Your task to perform on an android device: Clear the cart on ebay. Image 0: 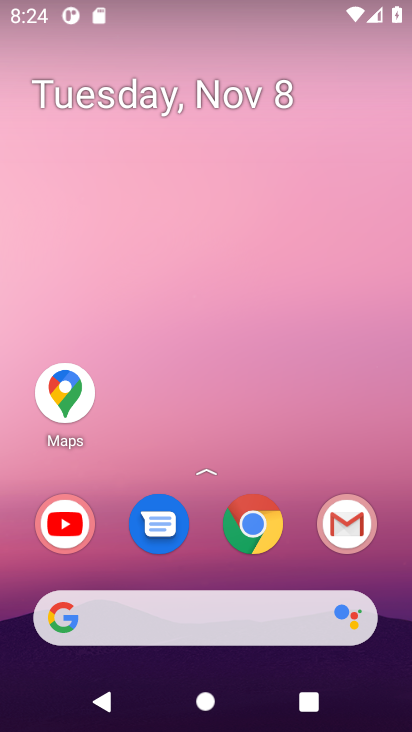
Step 0: click (262, 520)
Your task to perform on an android device: Clear the cart on ebay. Image 1: 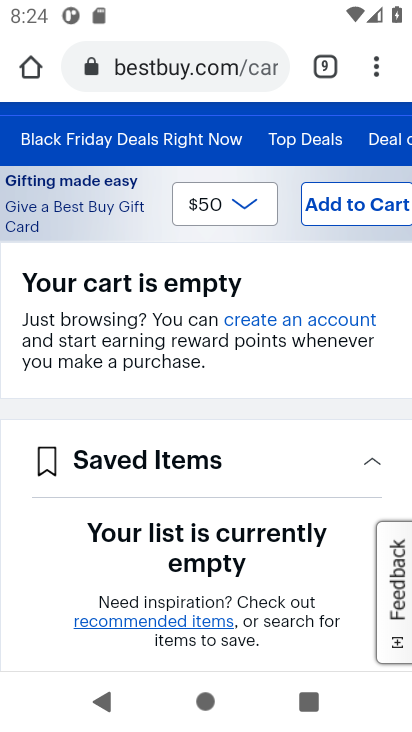
Step 1: click (234, 78)
Your task to perform on an android device: Clear the cart on ebay. Image 2: 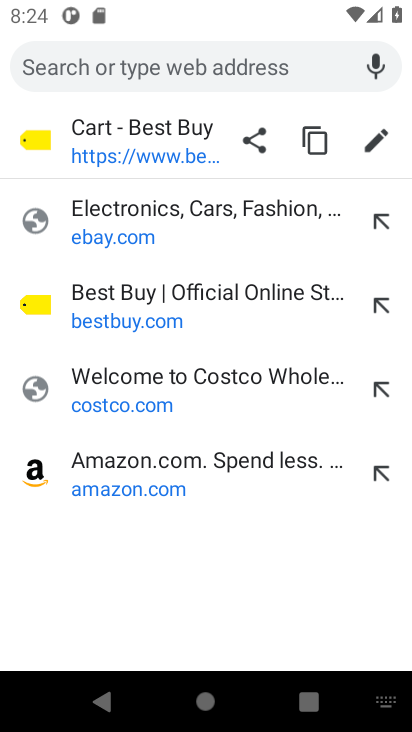
Step 2: click (141, 231)
Your task to perform on an android device: Clear the cart on ebay. Image 3: 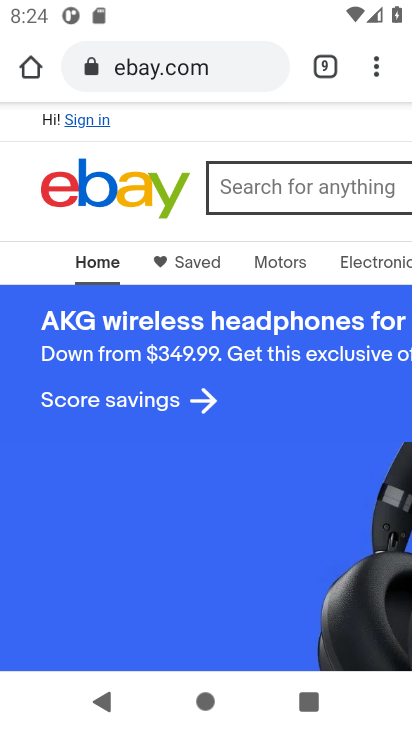
Step 3: drag from (321, 235) to (62, 216)
Your task to perform on an android device: Clear the cart on ebay. Image 4: 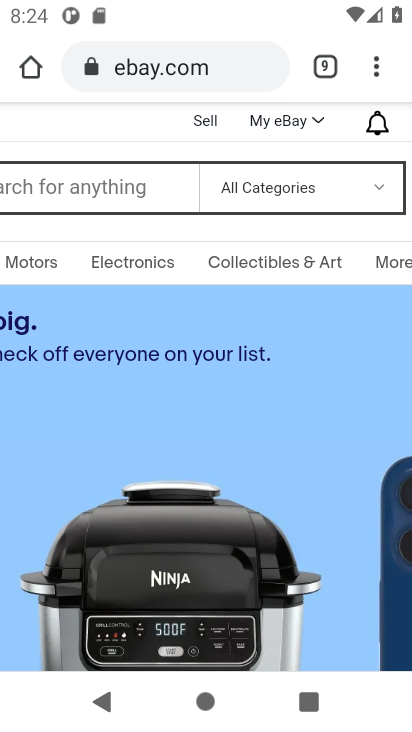
Step 4: drag from (314, 178) to (295, 261)
Your task to perform on an android device: Clear the cart on ebay. Image 5: 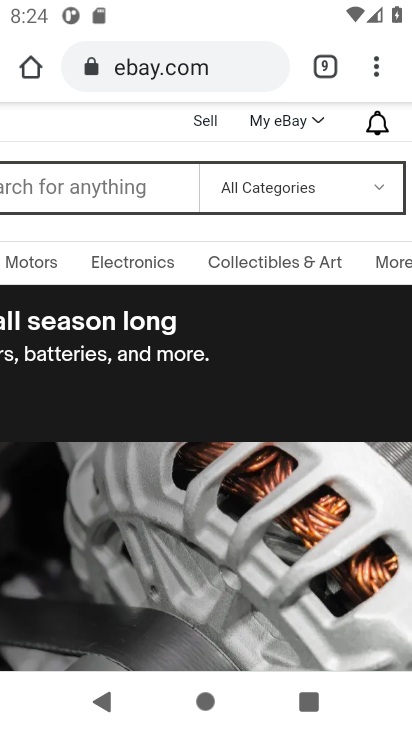
Step 5: drag from (382, 170) to (62, 154)
Your task to perform on an android device: Clear the cart on ebay. Image 6: 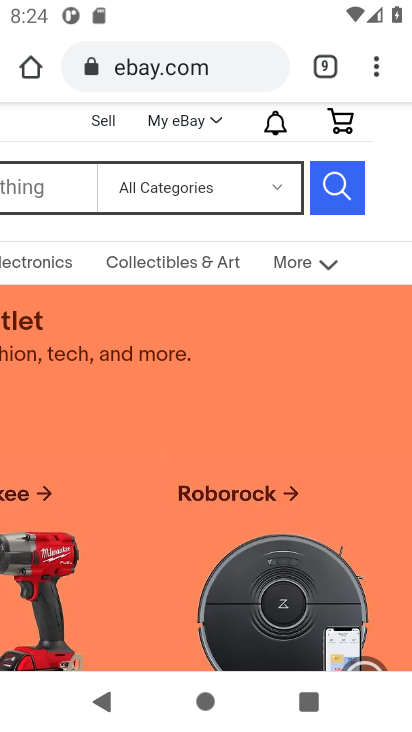
Step 6: click (336, 123)
Your task to perform on an android device: Clear the cart on ebay. Image 7: 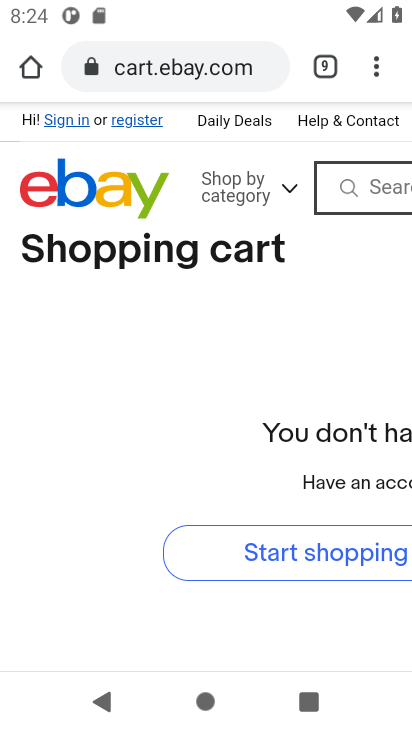
Step 7: task complete